Your task to perform on an android device: toggle sleep mode Image 0: 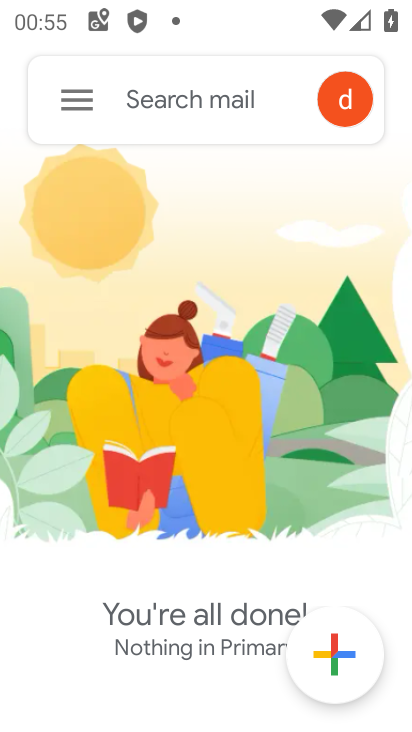
Step 0: press home button
Your task to perform on an android device: toggle sleep mode Image 1: 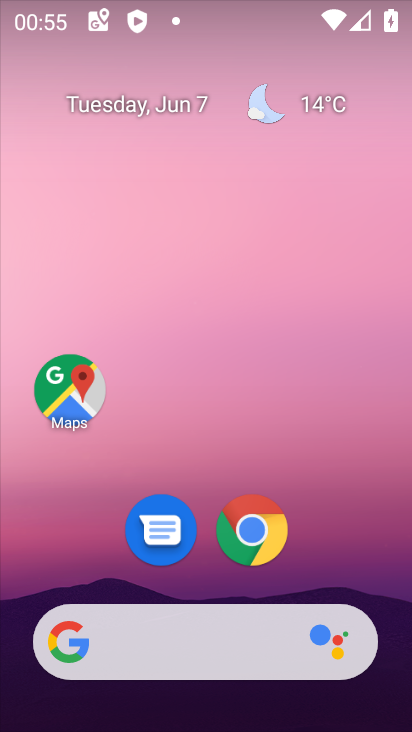
Step 1: drag from (218, 577) to (201, 284)
Your task to perform on an android device: toggle sleep mode Image 2: 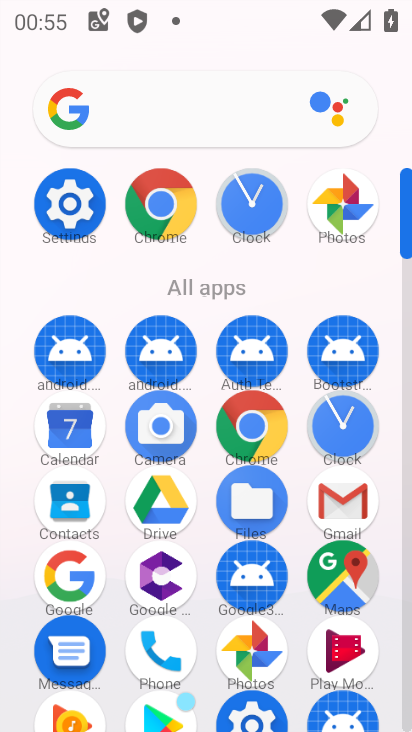
Step 2: click (75, 213)
Your task to perform on an android device: toggle sleep mode Image 3: 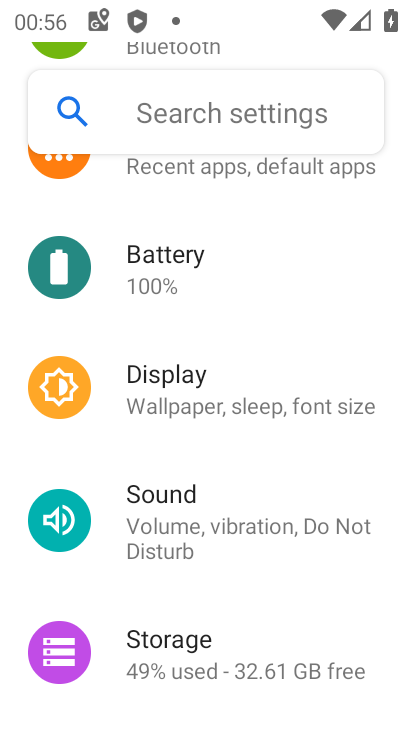
Step 3: task complete